Your task to perform on an android device: What is the recent news? Image 0: 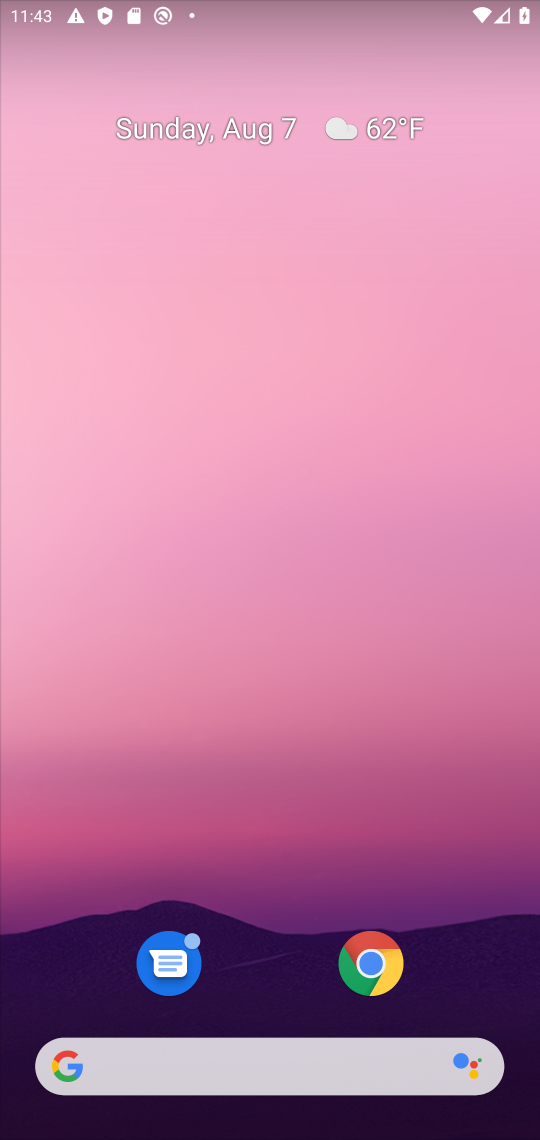
Step 0: drag from (499, 964) to (291, 75)
Your task to perform on an android device: What is the recent news? Image 1: 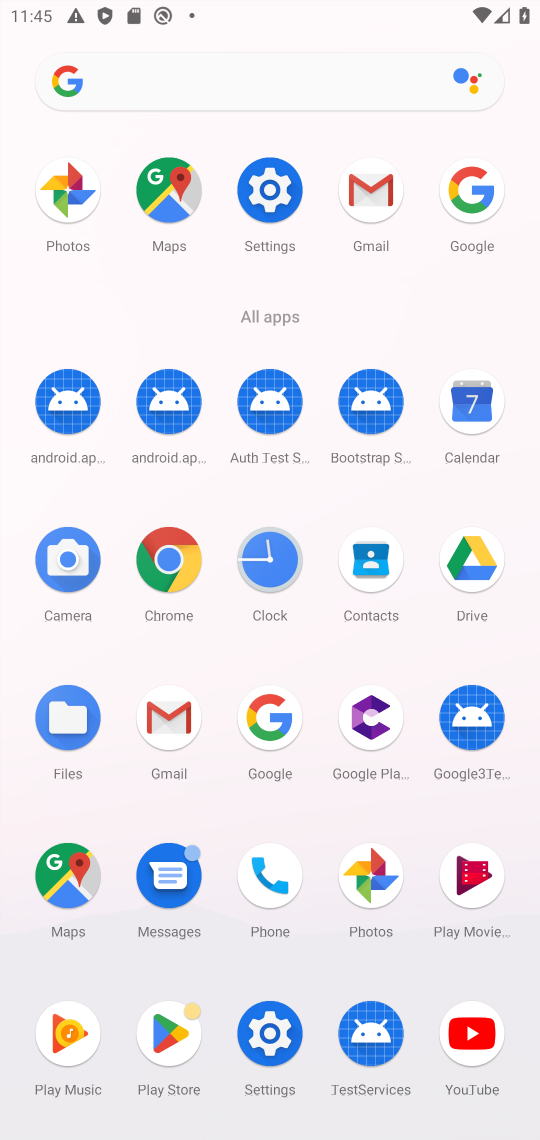
Step 1: click (257, 721)
Your task to perform on an android device: What is the recent news? Image 2: 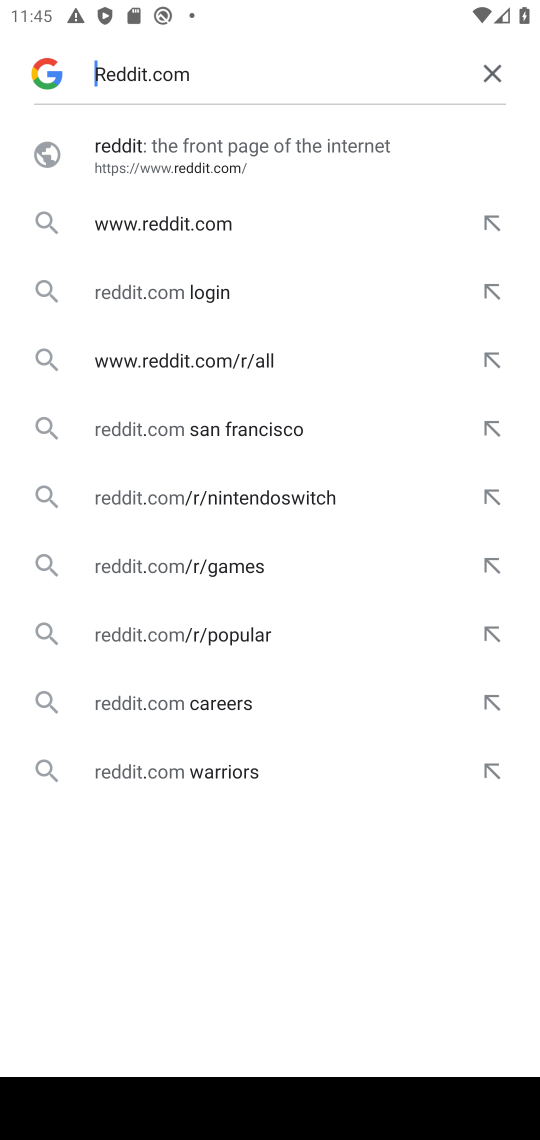
Step 2: click (499, 75)
Your task to perform on an android device: What is the recent news? Image 3: 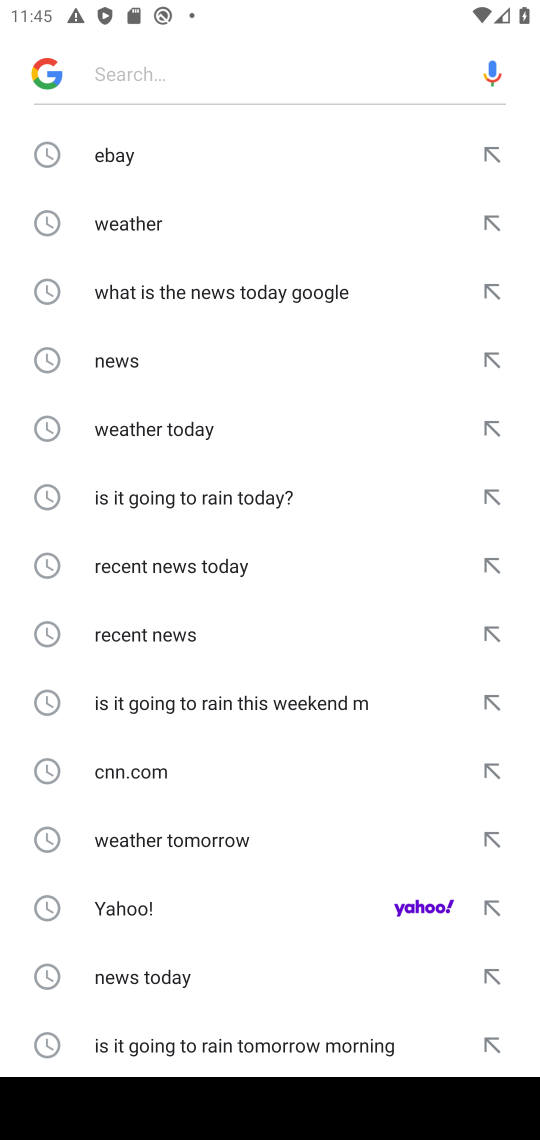
Step 3: type "What is the recent news?"
Your task to perform on an android device: What is the recent news? Image 4: 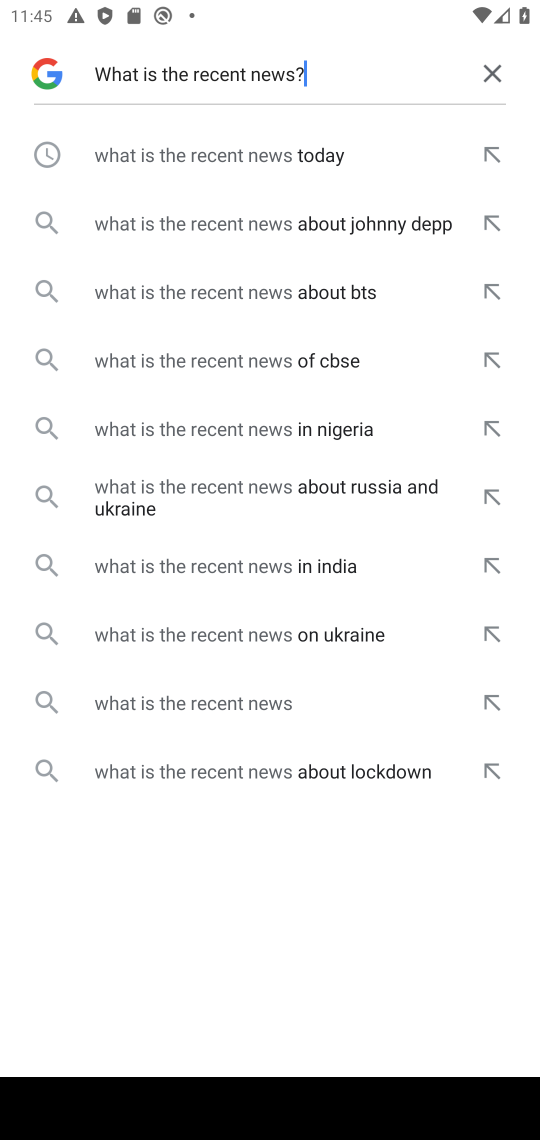
Step 4: click (167, 698)
Your task to perform on an android device: What is the recent news? Image 5: 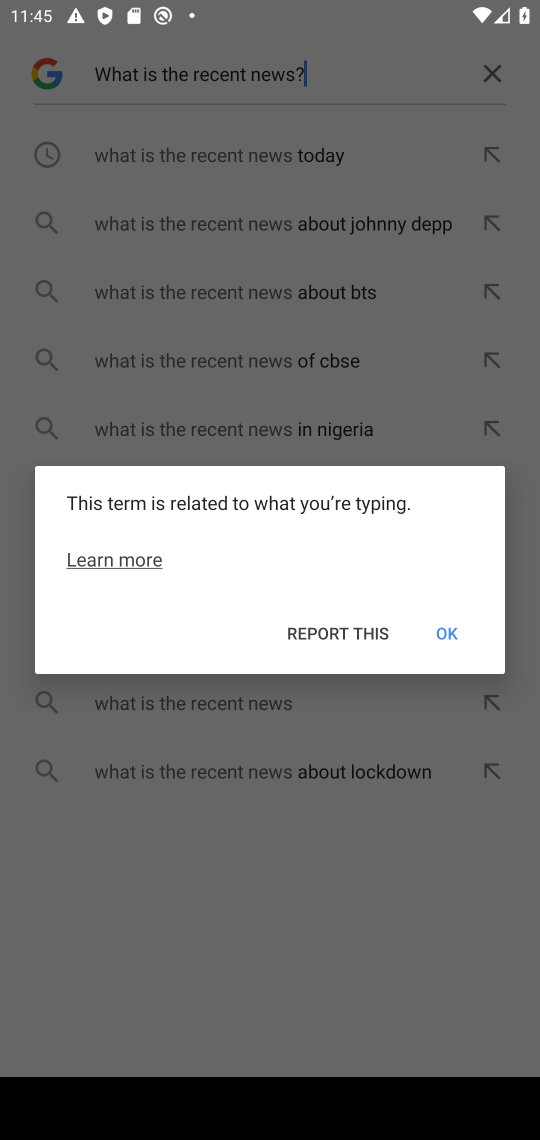
Step 5: click (444, 648)
Your task to perform on an android device: What is the recent news? Image 6: 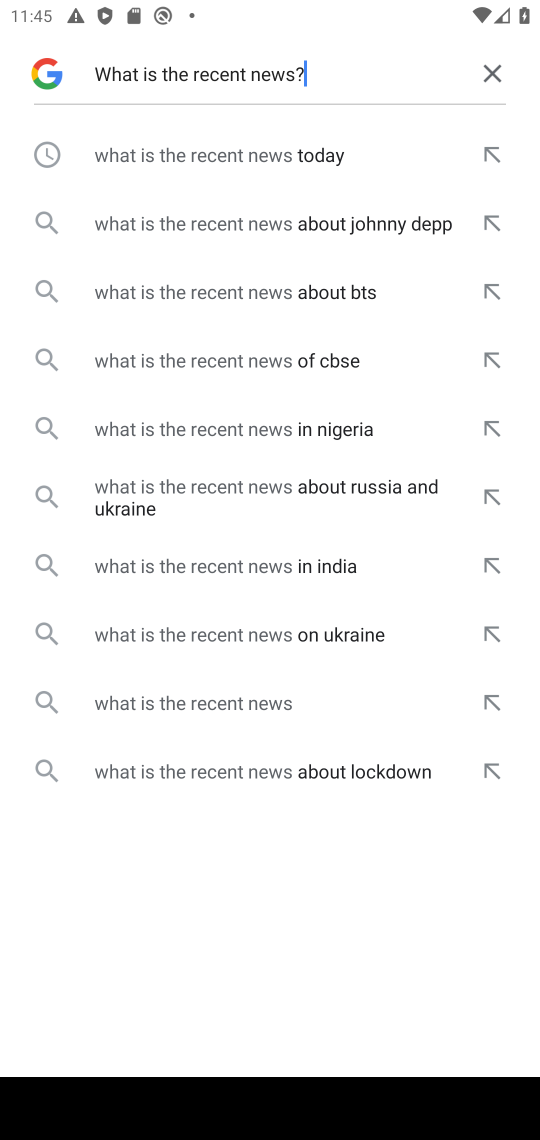
Step 6: click (264, 711)
Your task to perform on an android device: What is the recent news? Image 7: 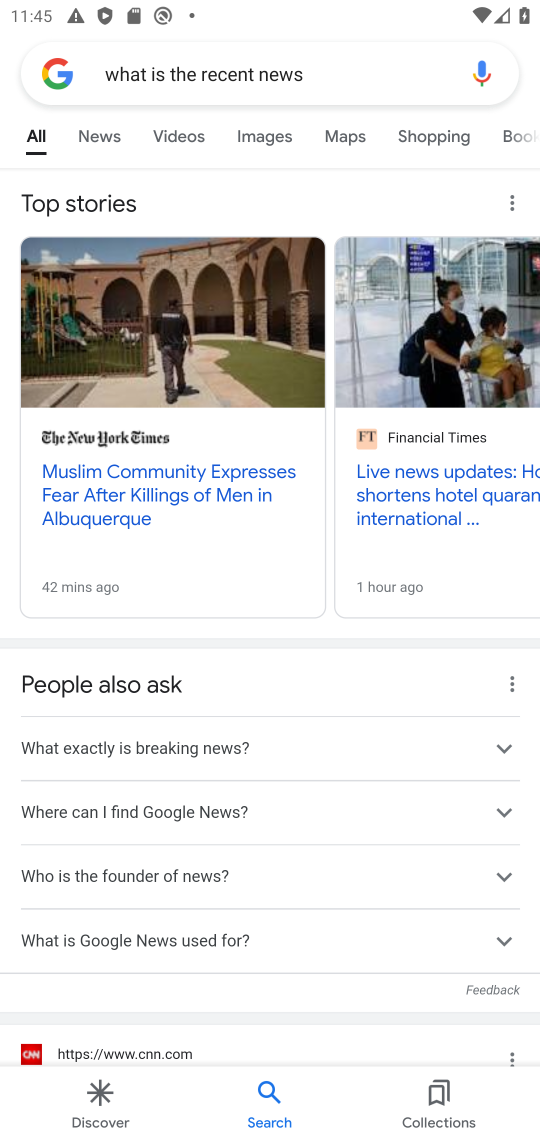
Step 7: task complete